Your task to perform on an android device: Open eBay Image 0: 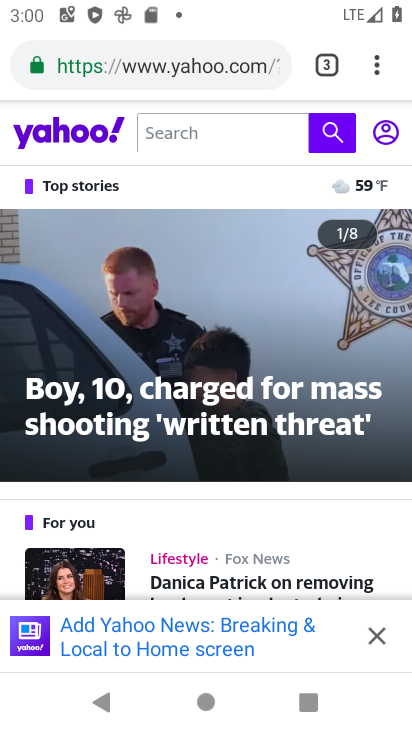
Step 0: press home button
Your task to perform on an android device: Open eBay Image 1: 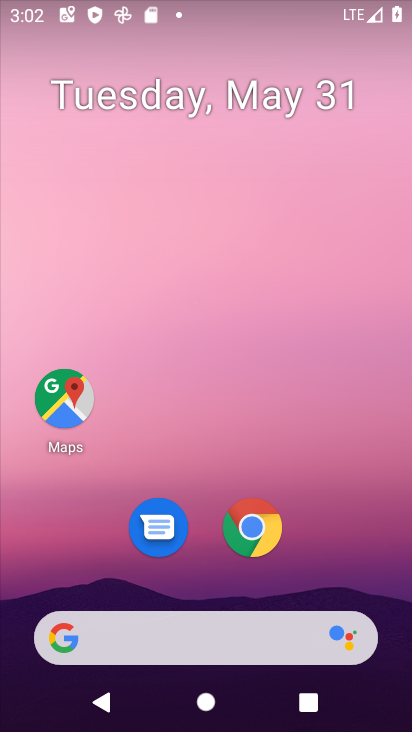
Step 1: drag from (376, 485) to (19, 120)
Your task to perform on an android device: Open eBay Image 2: 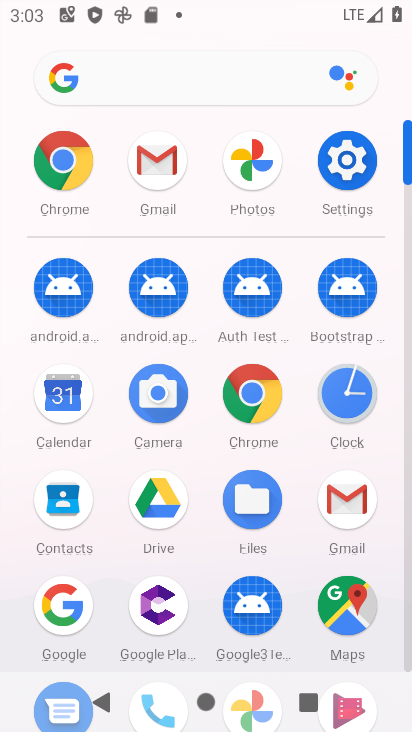
Step 2: click (60, 168)
Your task to perform on an android device: Open eBay Image 3: 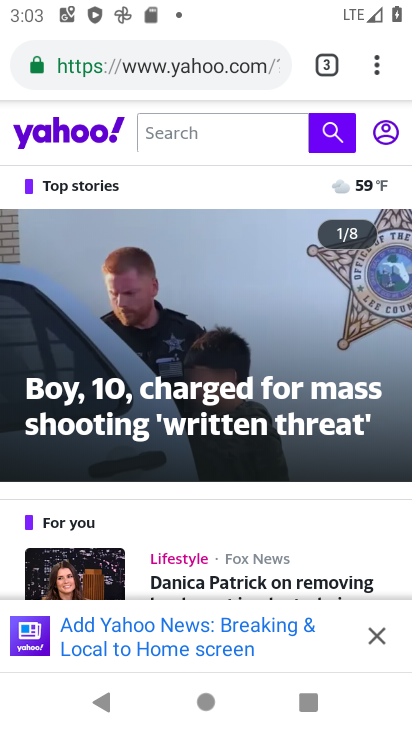
Step 3: click (168, 57)
Your task to perform on an android device: Open eBay Image 4: 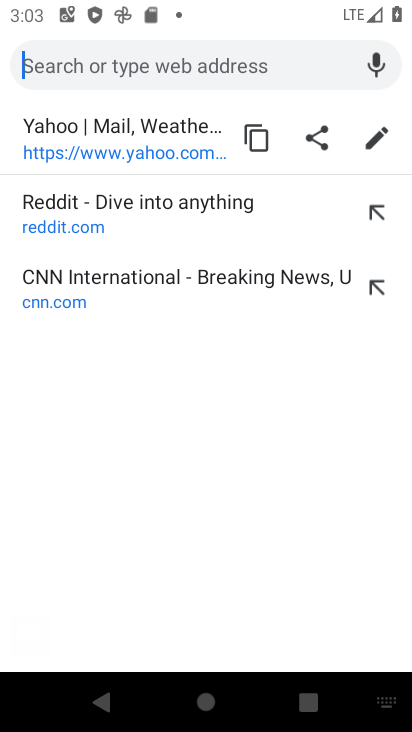
Step 4: type "ebay"
Your task to perform on an android device: Open eBay Image 5: 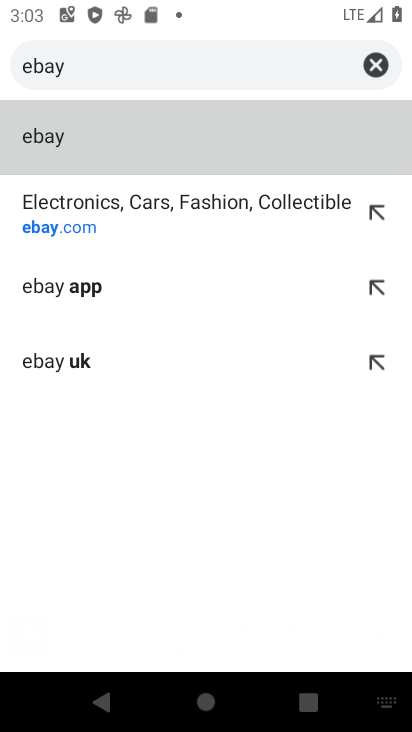
Step 5: click (48, 198)
Your task to perform on an android device: Open eBay Image 6: 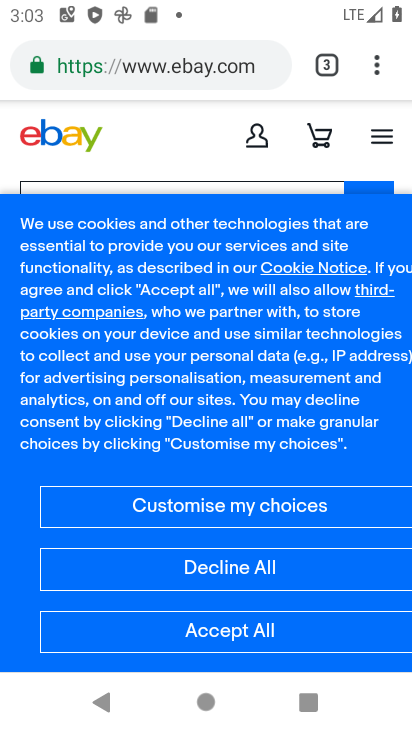
Step 6: task complete